Your task to perform on an android device: Search for vegetarian restaurants on Maps Image 0: 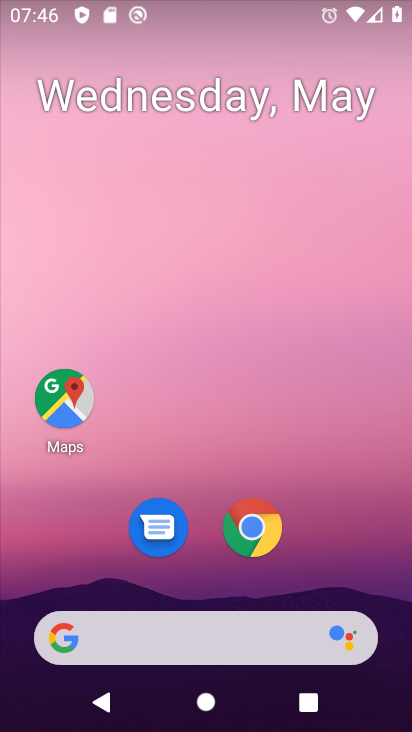
Step 0: press home button
Your task to perform on an android device: Search for vegetarian restaurants on Maps Image 1: 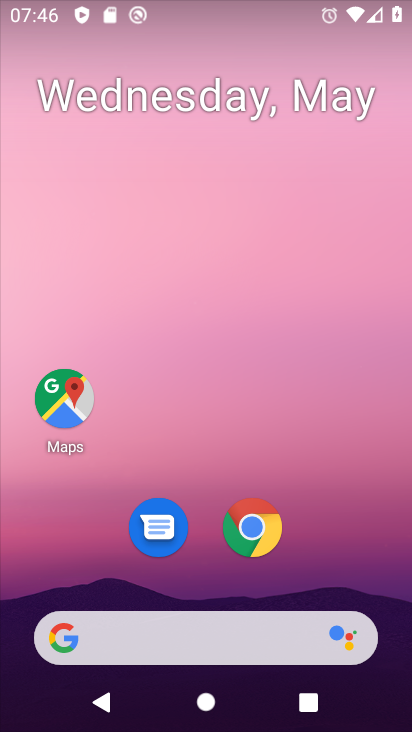
Step 1: press home button
Your task to perform on an android device: Search for vegetarian restaurants on Maps Image 2: 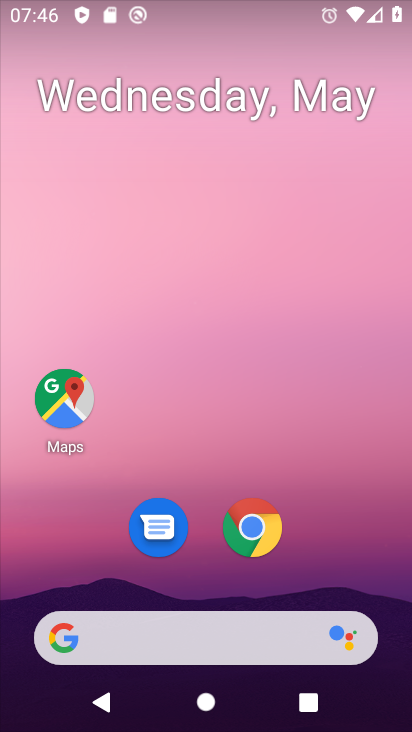
Step 2: click (61, 387)
Your task to perform on an android device: Search for vegetarian restaurants on Maps Image 3: 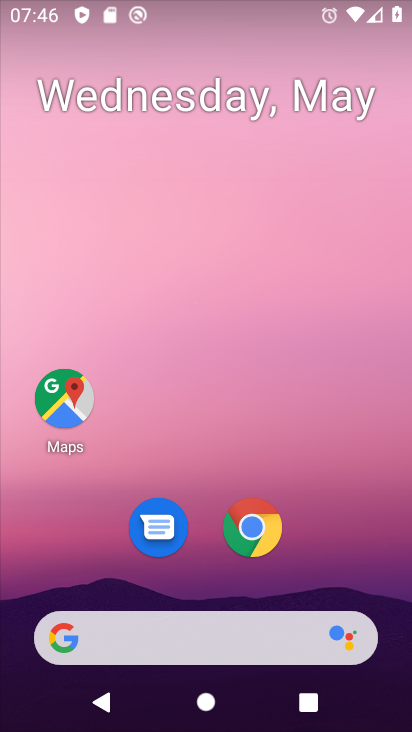
Step 3: click (61, 387)
Your task to perform on an android device: Search for vegetarian restaurants on Maps Image 4: 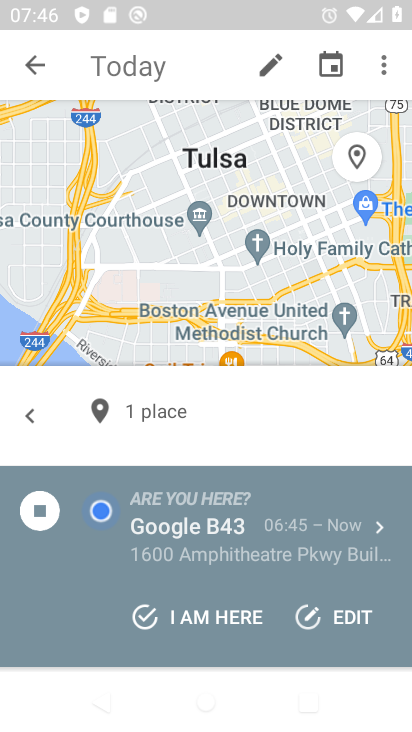
Step 4: click (25, 74)
Your task to perform on an android device: Search for vegetarian restaurants on Maps Image 5: 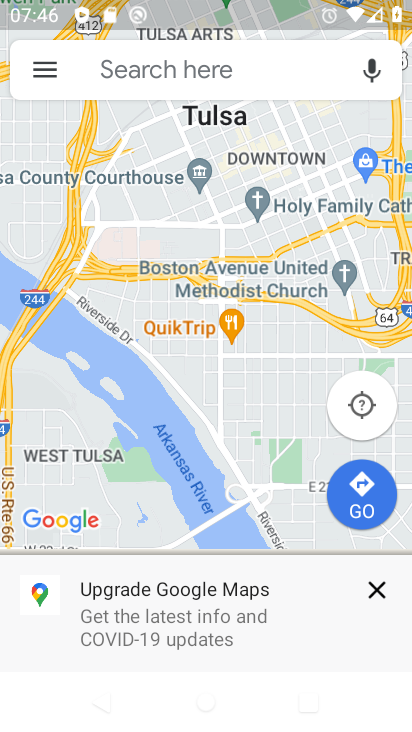
Step 5: click (302, 71)
Your task to perform on an android device: Search for vegetarian restaurants on Maps Image 6: 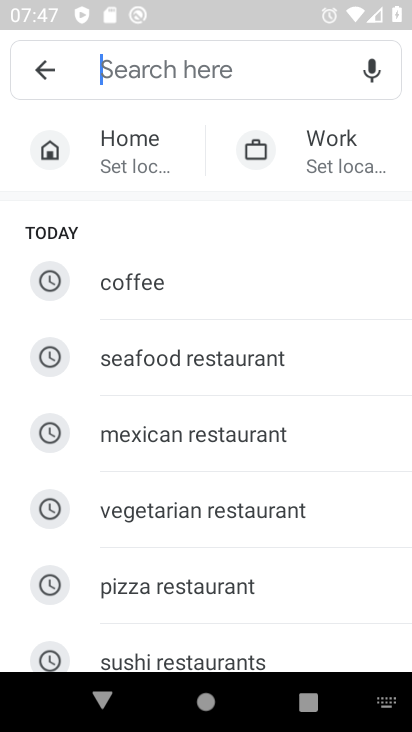
Step 6: type "vegetarian restaurants "
Your task to perform on an android device: Search for vegetarian restaurants on Maps Image 7: 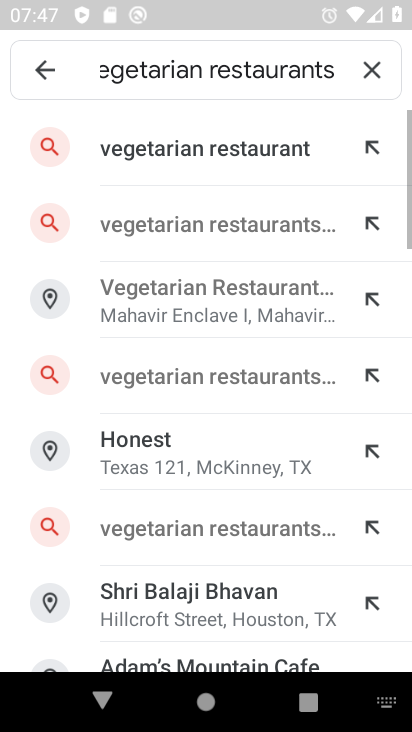
Step 7: click (134, 158)
Your task to perform on an android device: Search for vegetarian restaurants on Maps Image 8: 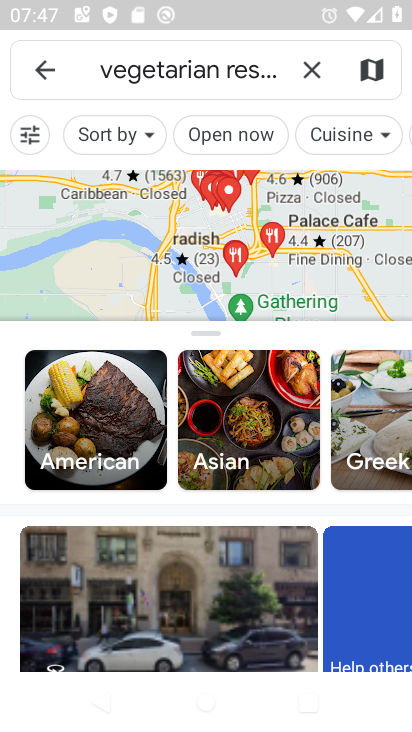
Step 8: task complete